Your task to perform on an android device: Clear the cart on bestbuy. Add razer blade to the cart on bestbuy, then select checkout. Image 0: 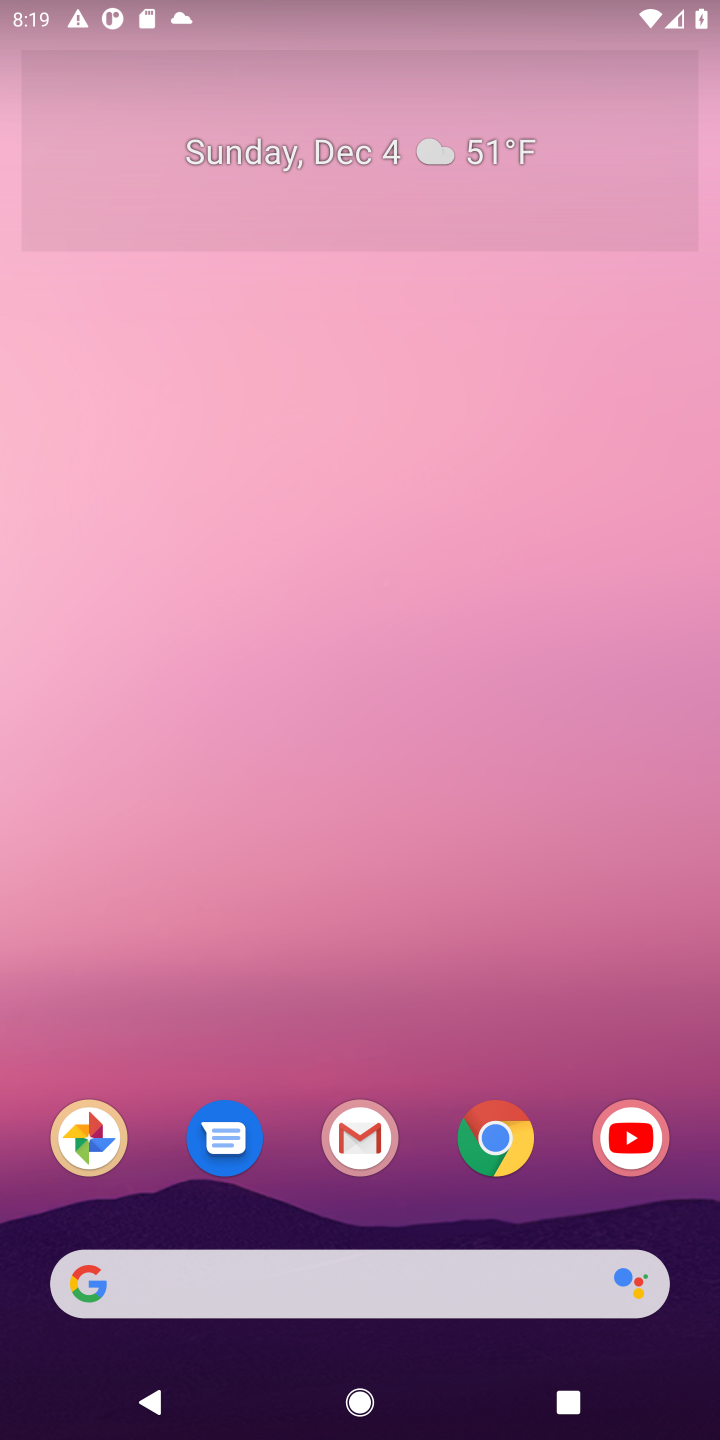
Step 0: click (520, 1147)
Your task to perform on an android device: Clear the cart on bestbuy. Add razer blade to the cart on bestbuy, then select checkout. Image 1: 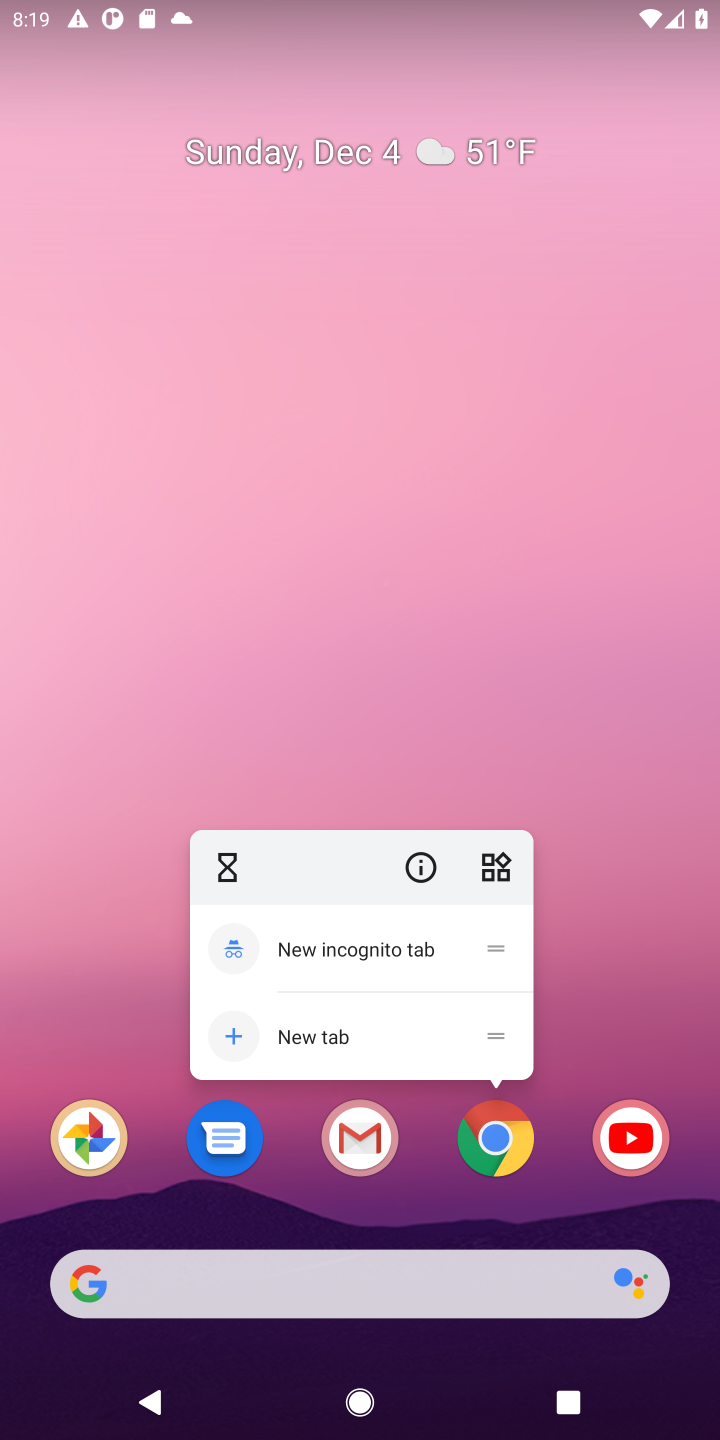
Step 1: click (520, 1147)
Your task to perform on an android device: Clear the cart on bestbuy. Add razer blade to the cart on bestbuy, then select checkout. Image 2: 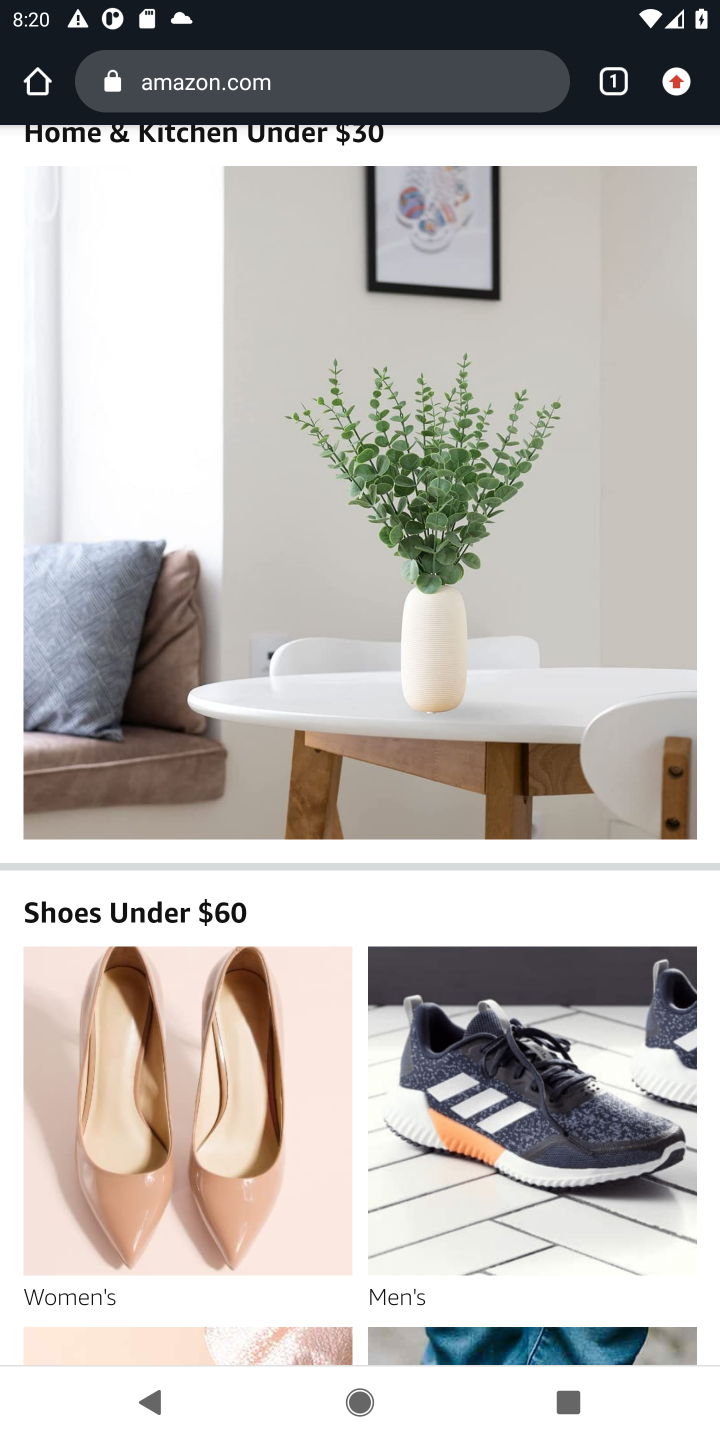
Step 2: click (359, 94)
Your task to perform on an android device: Clear the cart on bestbuy. Add razer blade to the cart on bestbuy, then select checkout. Image 3: 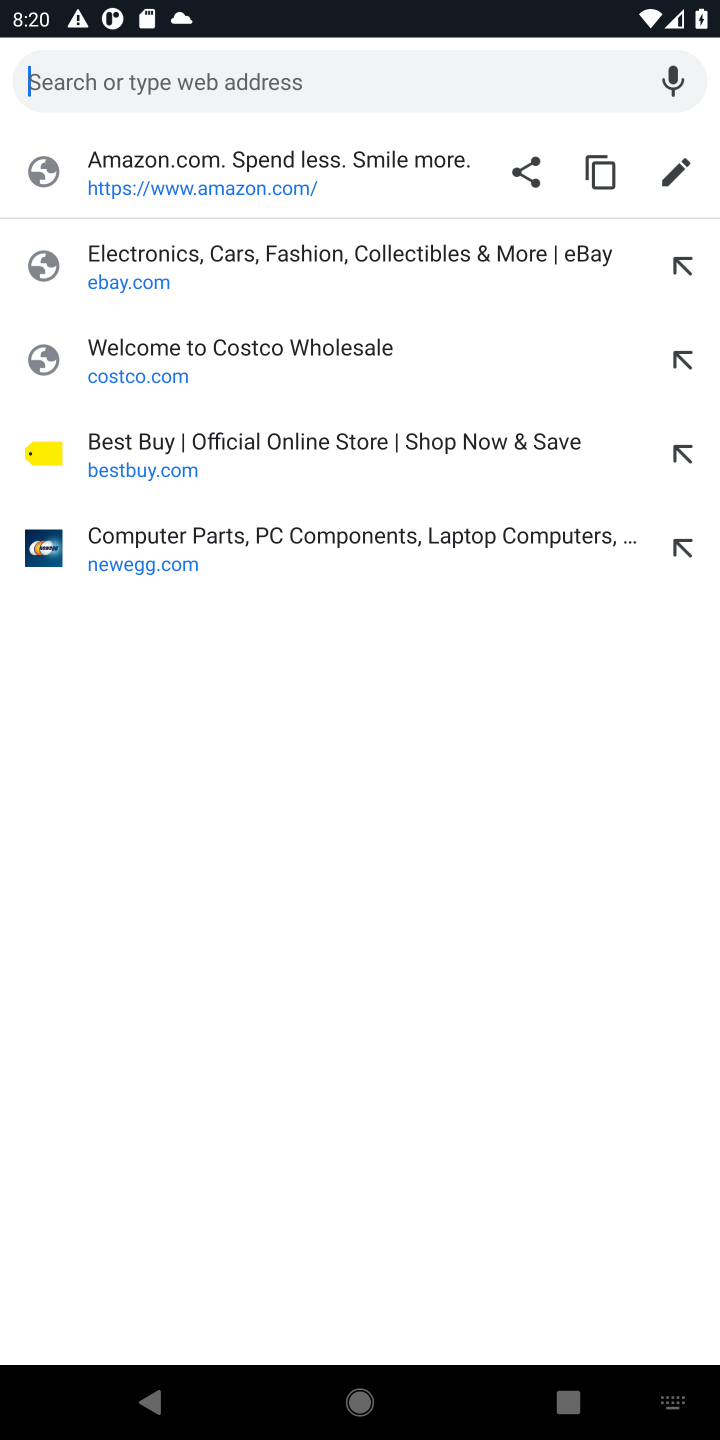
Step 3: press enter
Your task to perform on an android device: Clear the cart on bestbuy. Add razer blade to the cart on bestbuy, then select checkout. Image 4: 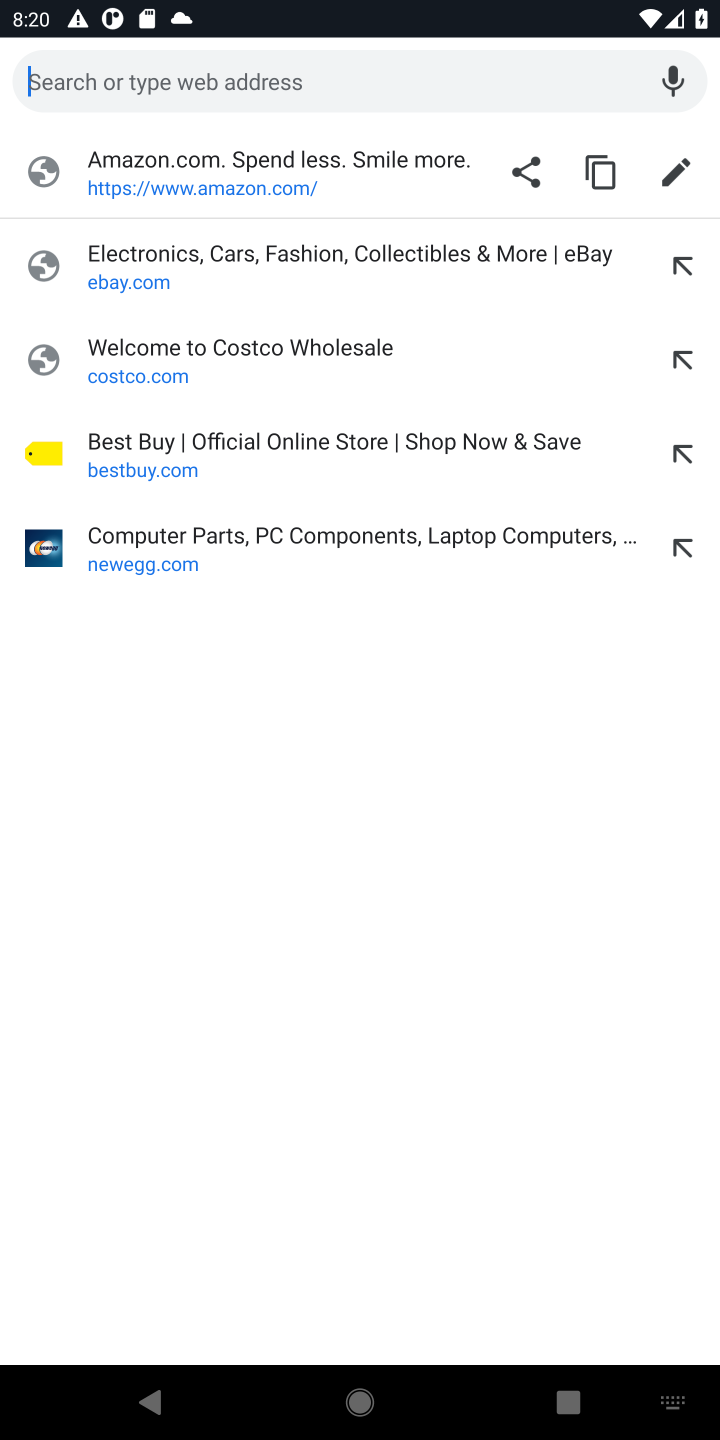
Step 4: type "bestbuy"
Your task to perform on an android device: Clear the cart on bestbuy. Add razer blade to the cart on bestbuy, then select checkout. Image 5: 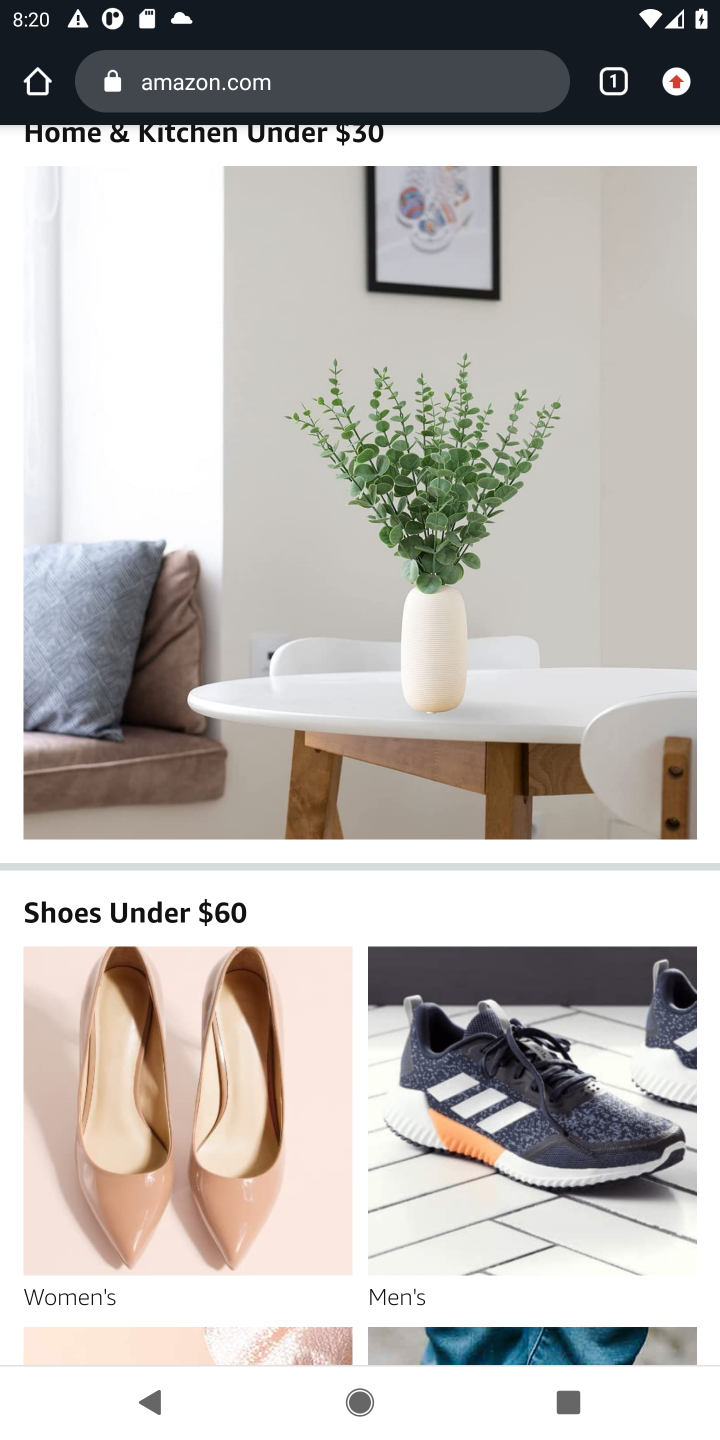
Step 5: click (454, 86)
Your task to perform on an android device: Clear the cart on bestbuy. Add razer blade to the cart on bestbuy, then select checkout. Image 6: 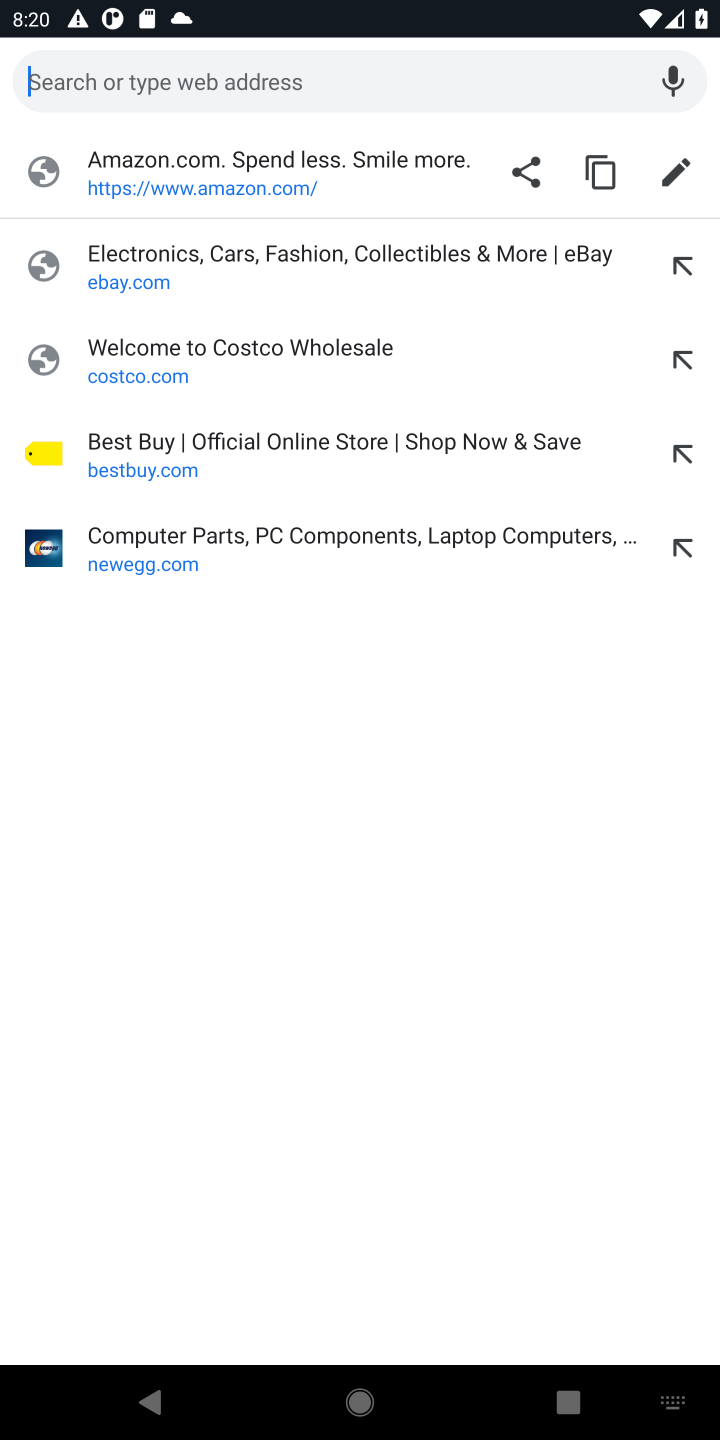
Step 6: type "bestbuy"
Your task to perform on an android device: Clear the cart on bestbuy. Add razer blade to the cart on bestbuy, then select checkout. Image 7: 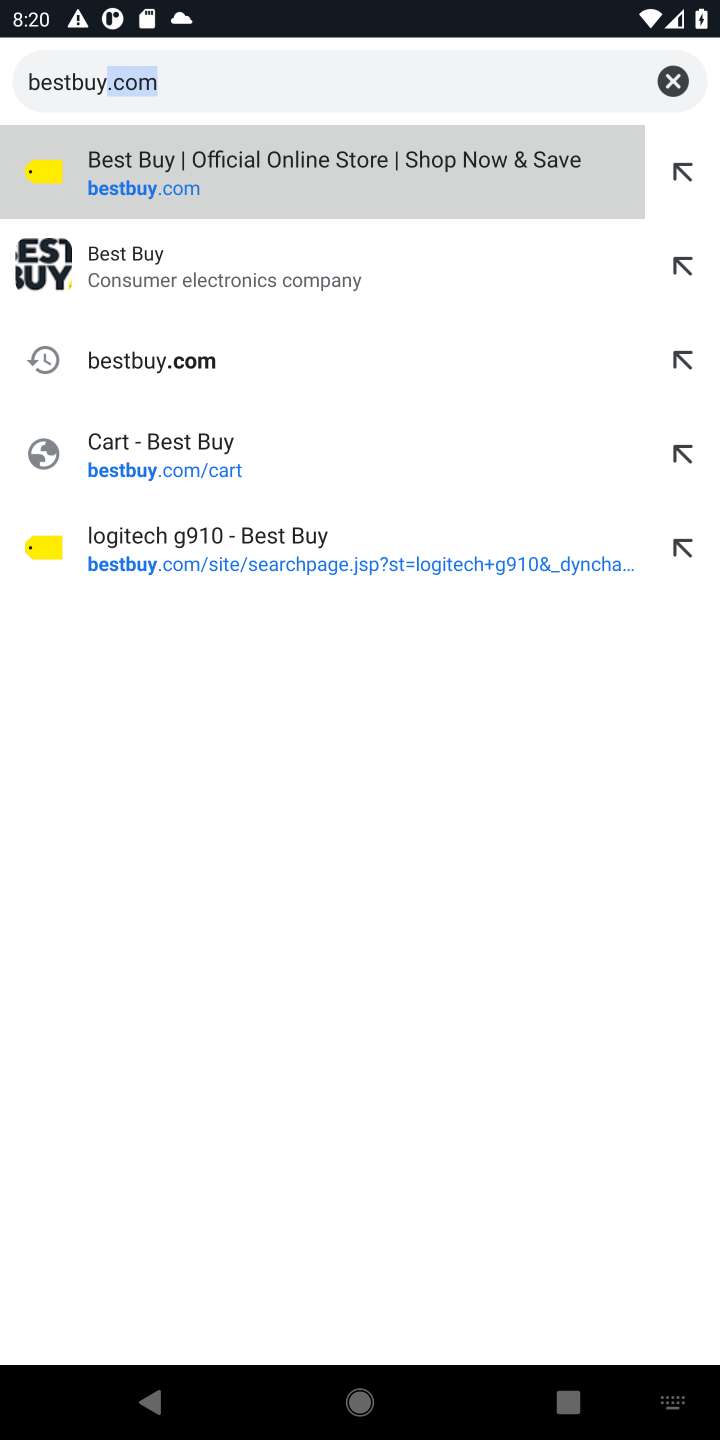
Step 7: press enter
Your task to perform on an android device: Clear the cart on bestbuy. Add razer blade to the cart on bestbuy, then select checkout. Image 8: 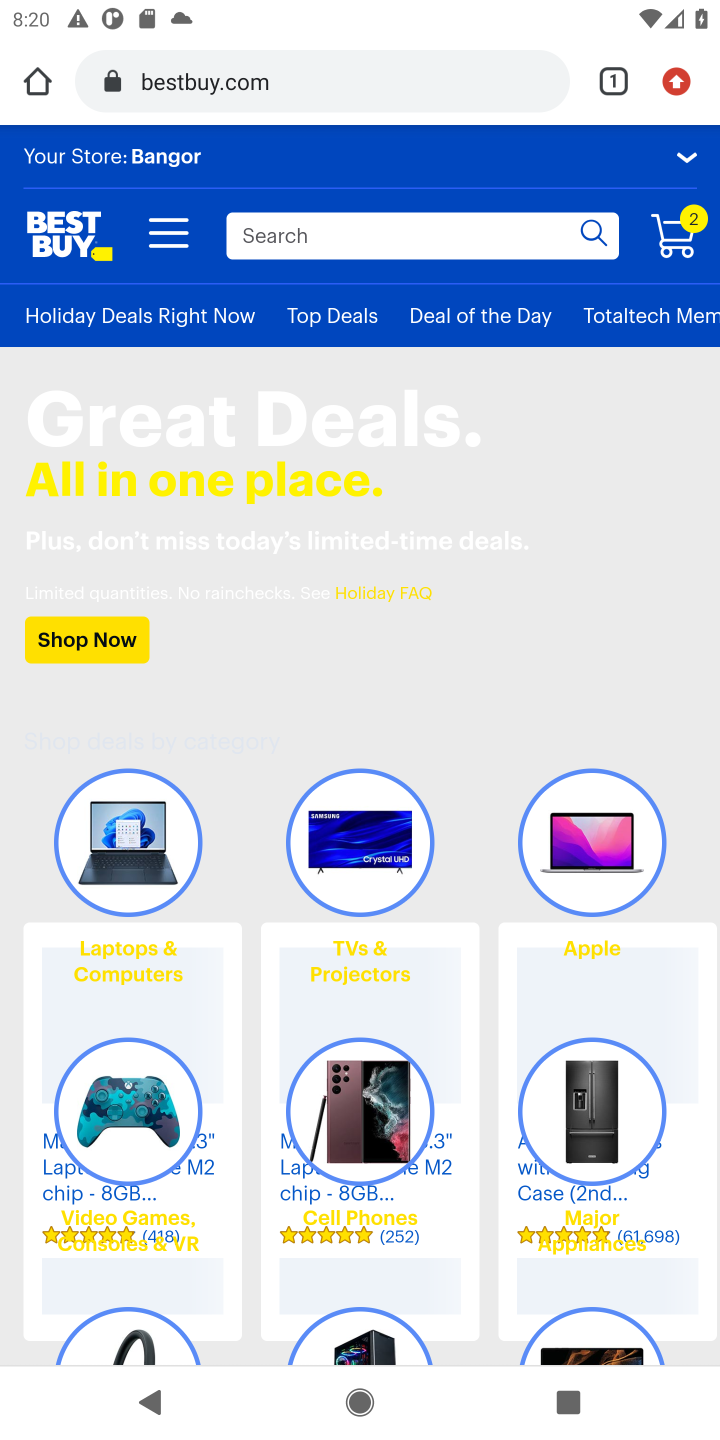
Step 8: click (672, 239)
Your task to perform on an android device: Clear the cart on bestbuy. Add razer blade to the cart on bestbuy, then select checkout. Image 9: 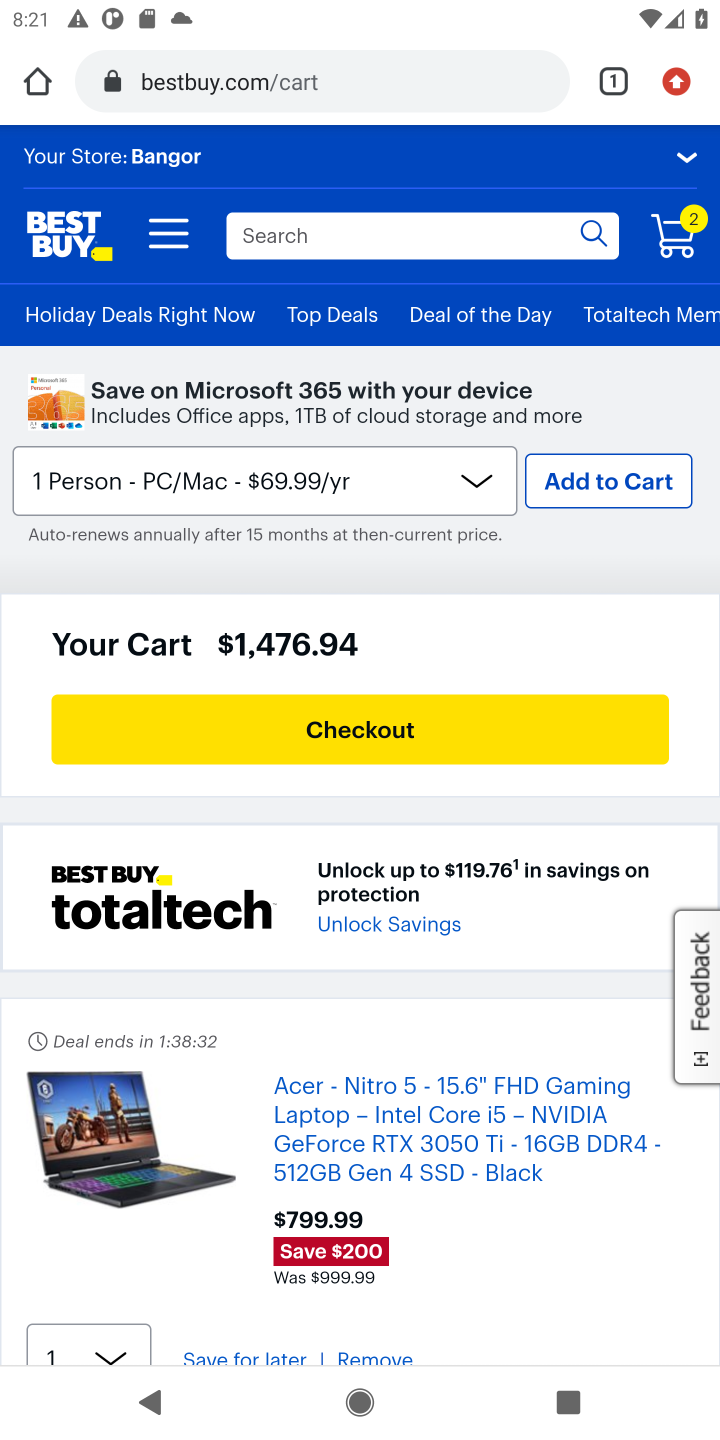
Step 9: drag from (496, 1289) to (593, 1003)
Your task to perform on an android device: Clear the cart on bestbuy. Add razer blade to the cart on bestbuy, then select checkout. Image 10: 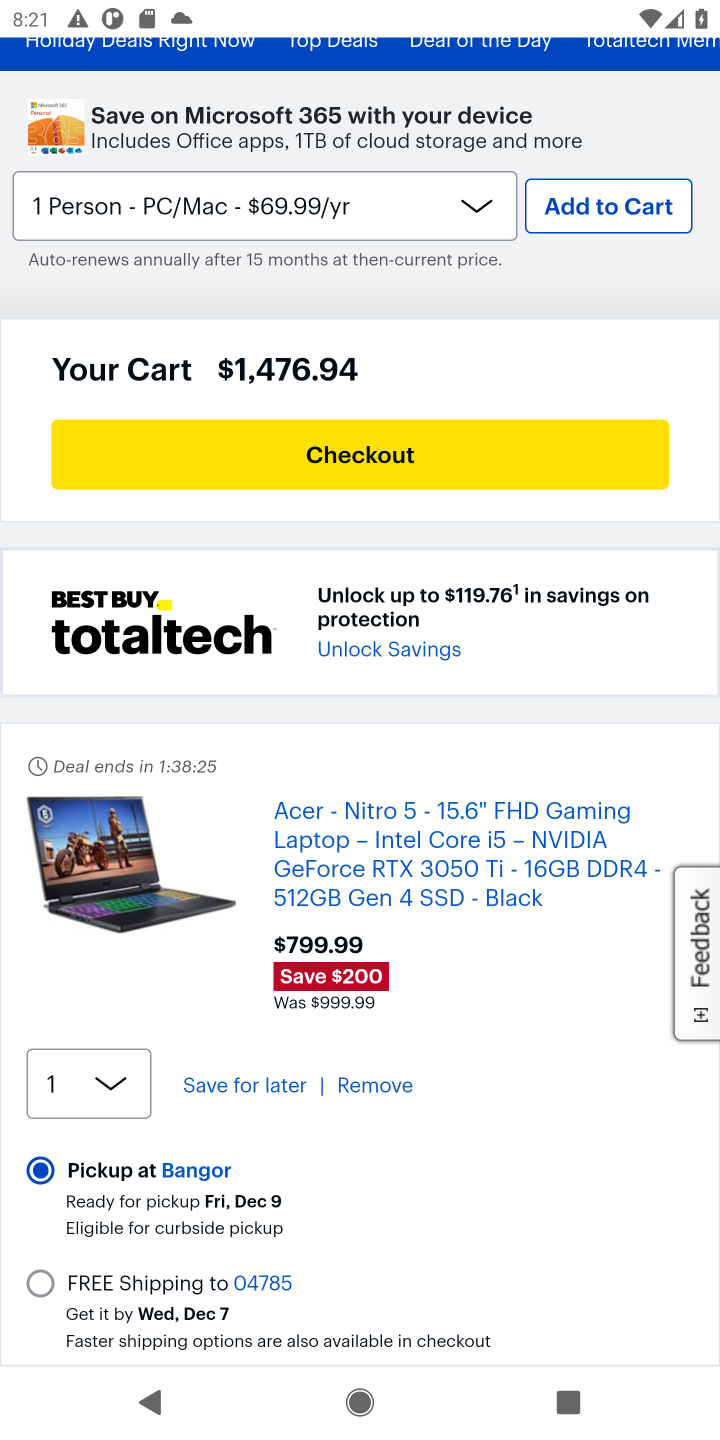
Step 10: click (390, 1074)
Your task to perform on an android device: Clear the cart on bestbuy. Add razer blade to the cart on bestbuy, then select checkout. Image 11: 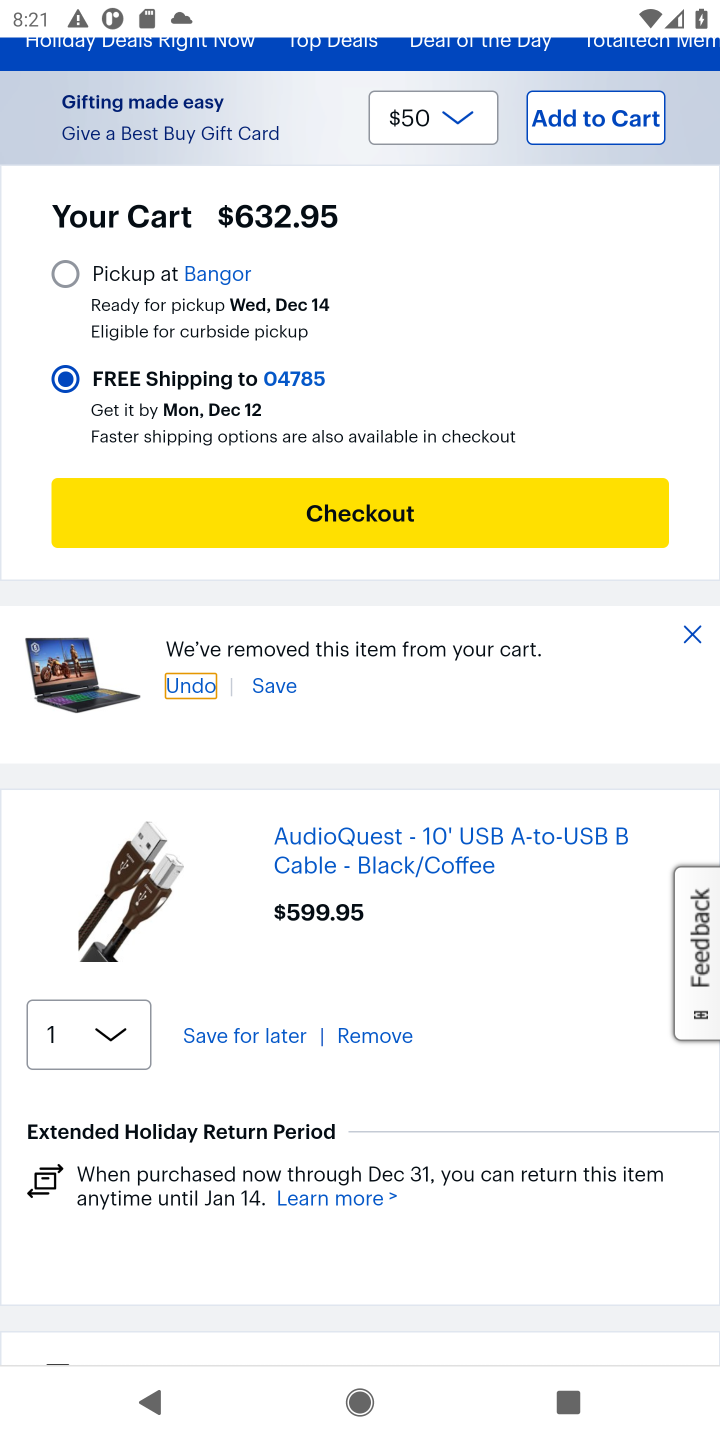
Step 11: click (382, 1021)
Your task to perform on an android device: Clear the cart on bestbuy. Add razer blade to the cart on bestbuy, then select checkout. Image 12: 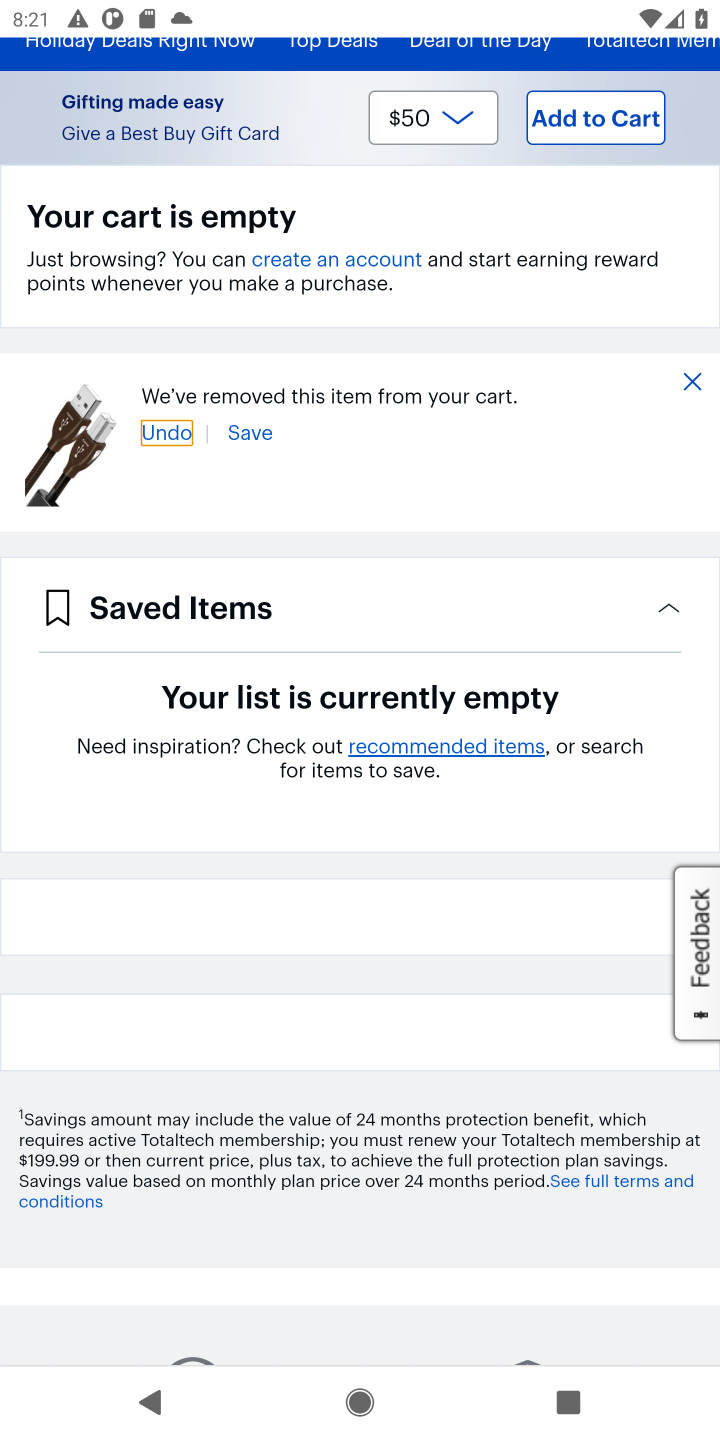
Step 12: drag from (542, 306) to (627, 1154)
Your task to perform on an android device: Clear the cart on bestbuy. Add razer blade to the cart on bestbuy, then select checkout. Image 13: 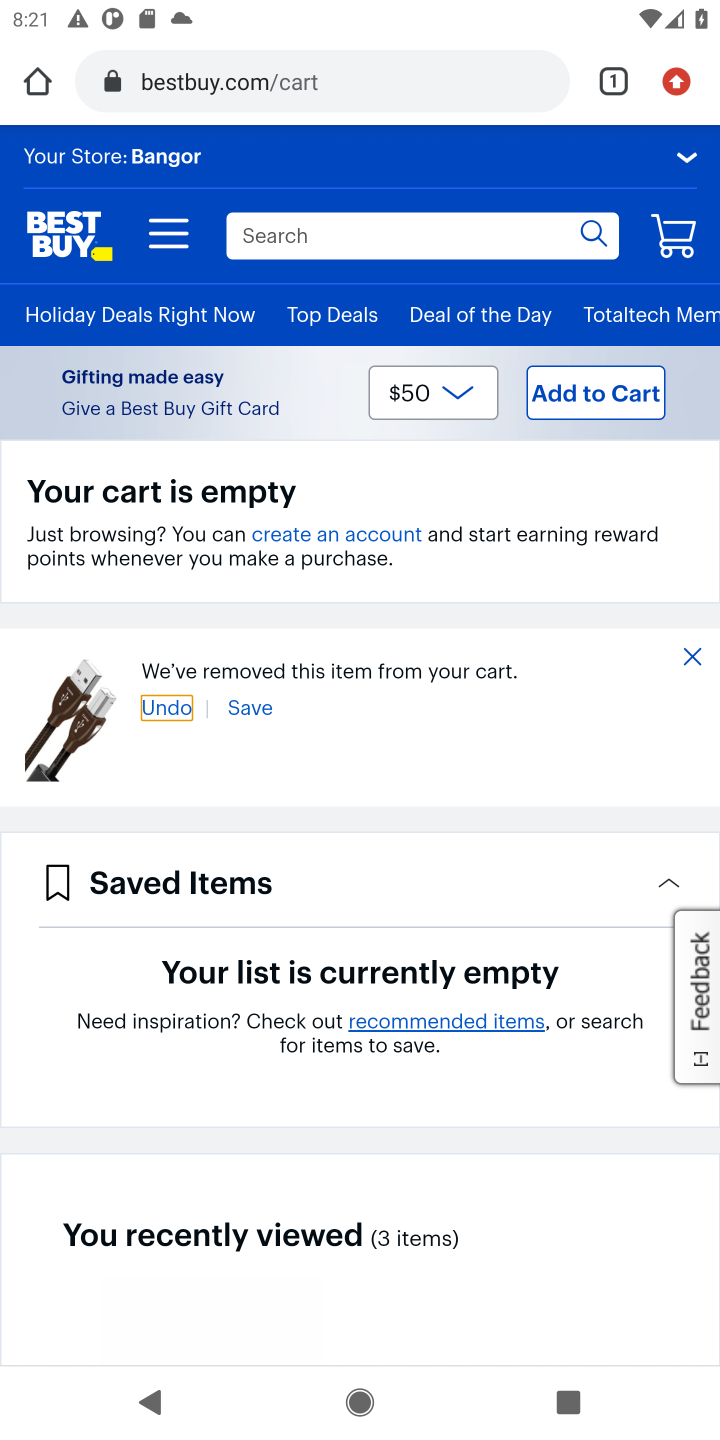
Step 13: click (698, 653)
Your task to perform on an android device: Clear the cart on bestbuy. Add razer blade to the cart on bestbuy, then select checkout. Image 14: 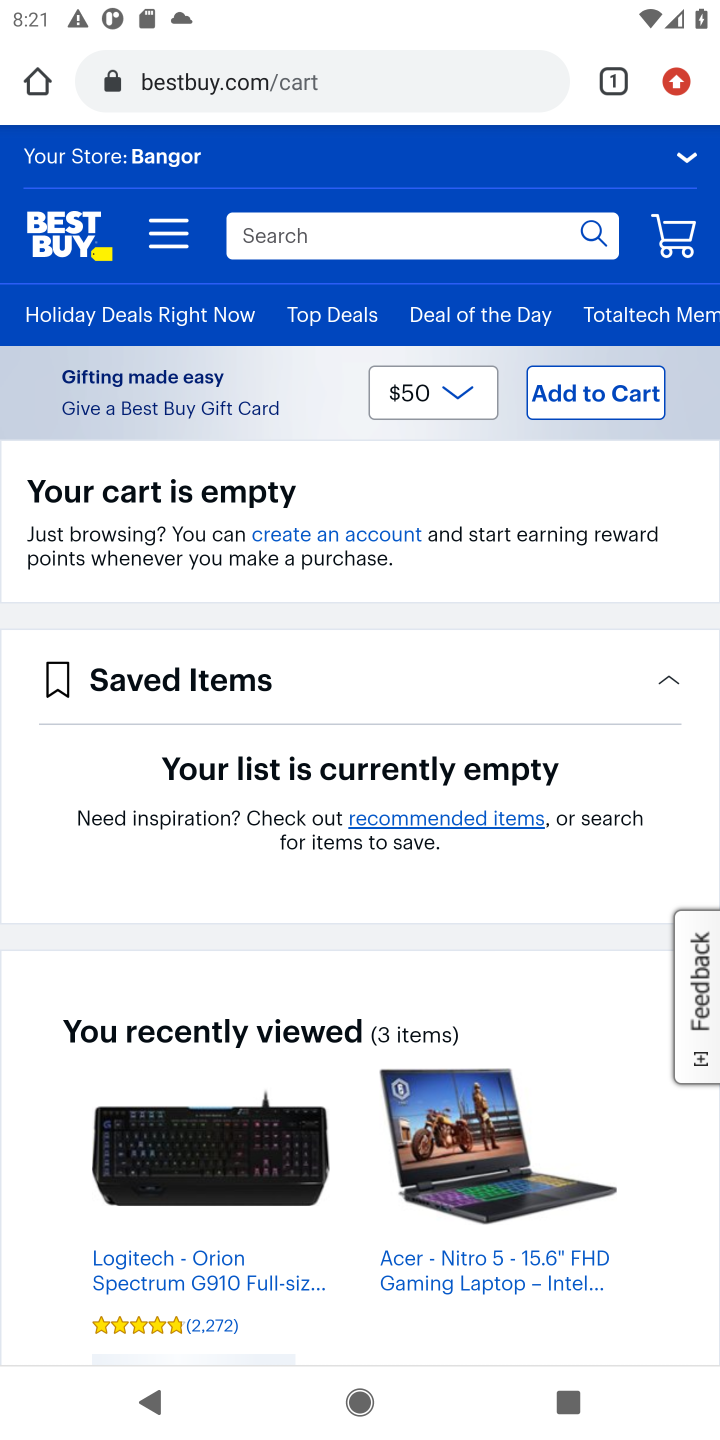
Step 14: click (458, 225)
Your task to perform on an android device: Clear the cart on bestbuy. Add razer blade to the cart on bestbuy, then select checkout. Image 15: 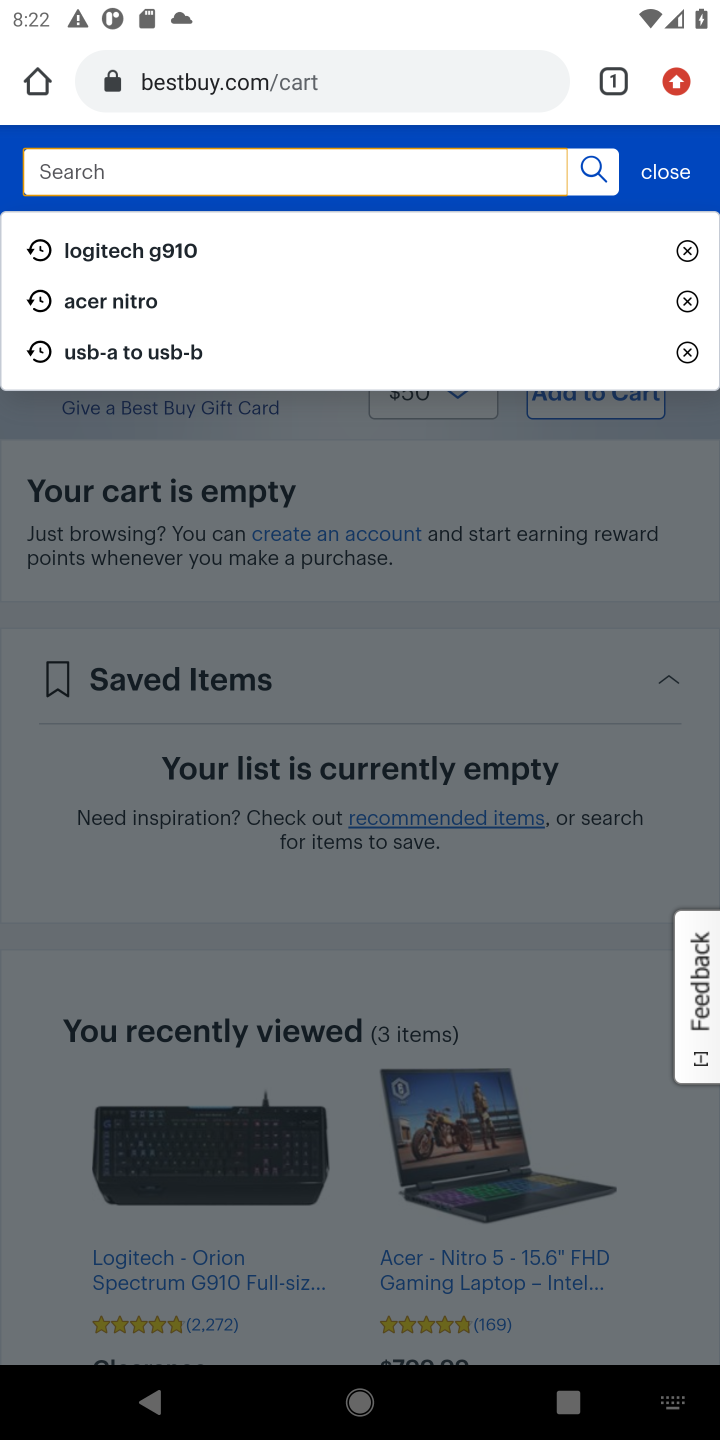
Step 15: type "razer blade"
Your task to perform on an android device: Clear the cart on bestbuy. Add razer blade to the cart on bestbuy, then select checkout. Image 16: 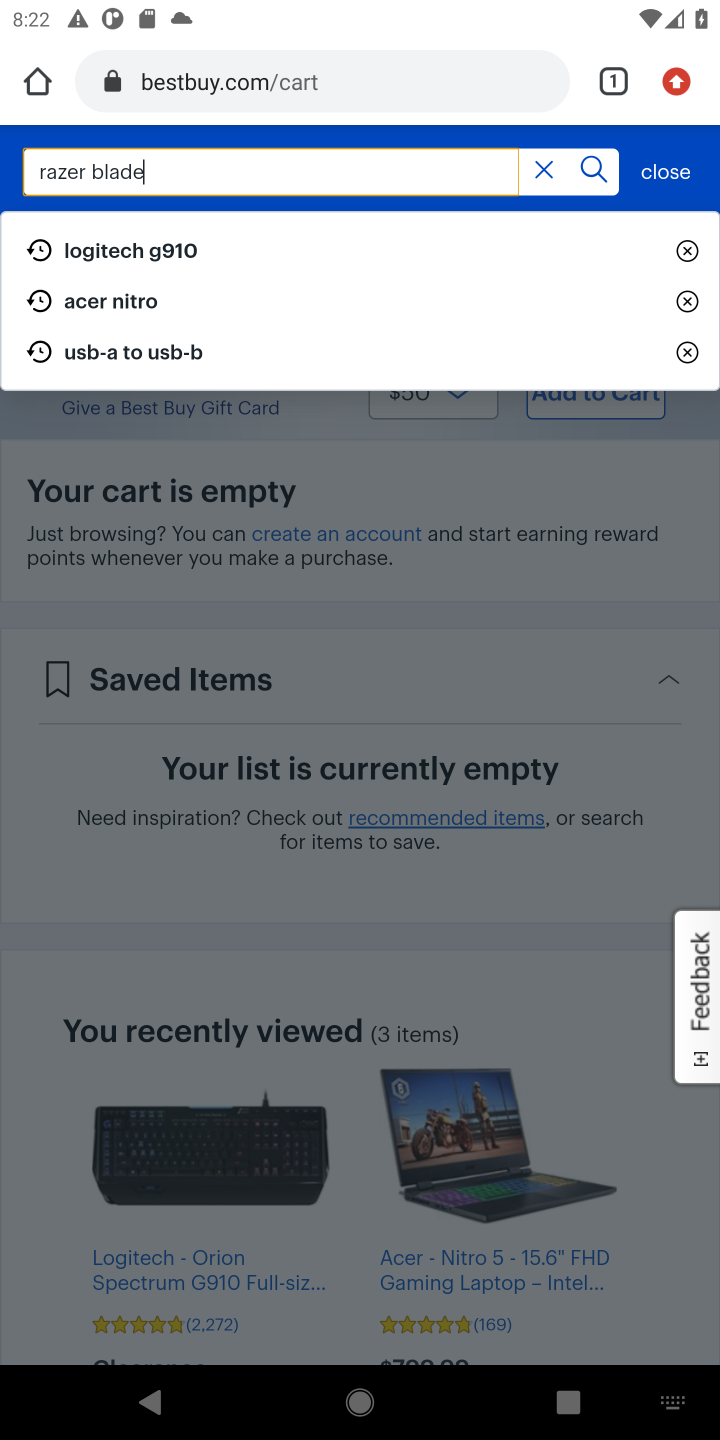
Step 16: press enter
Your task to perform on an android device: Clear the cart on bestbuy. Add razer blade to the cart on bestbuy, then select checkout. Image 17: 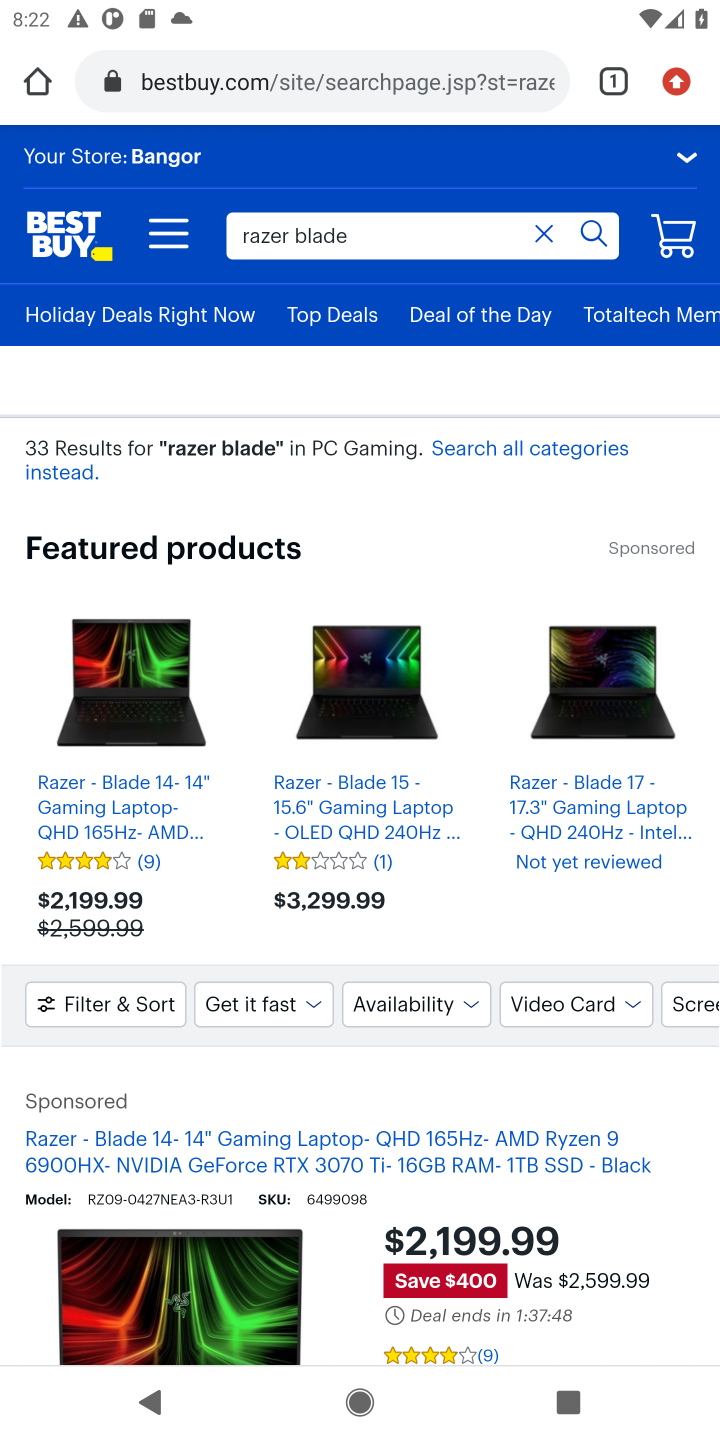
Step 17: click (212, 1262)
Your task to perform on an android device: Clear the cart on bestbuy. Add razer blade to the cart on bestbuy, then select checkout. Image 18: 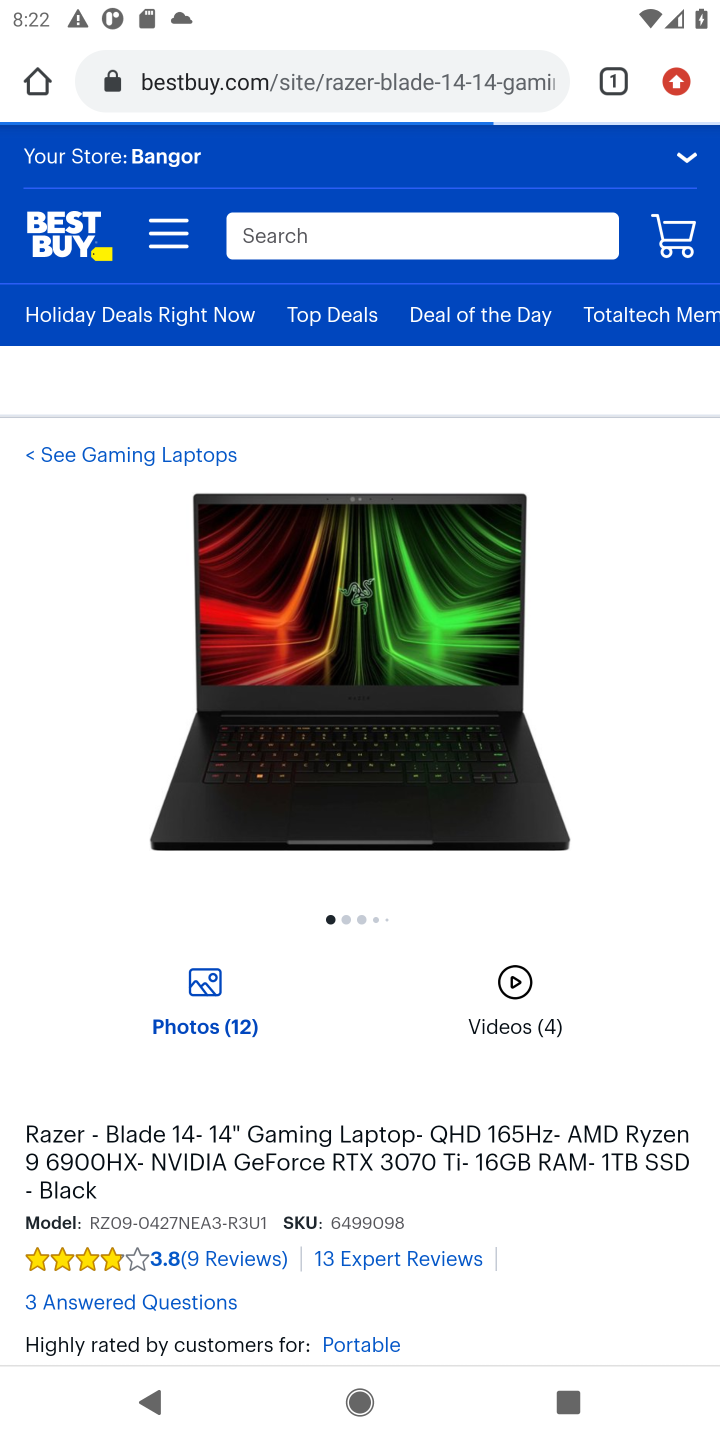
Step 18: drag from (567, 1197) to (468, 644)
Your task to perform on an android device: Clear the cart on bestbuy. Add razer blade to the cart on bestbuy, then select checkout. Image 19: 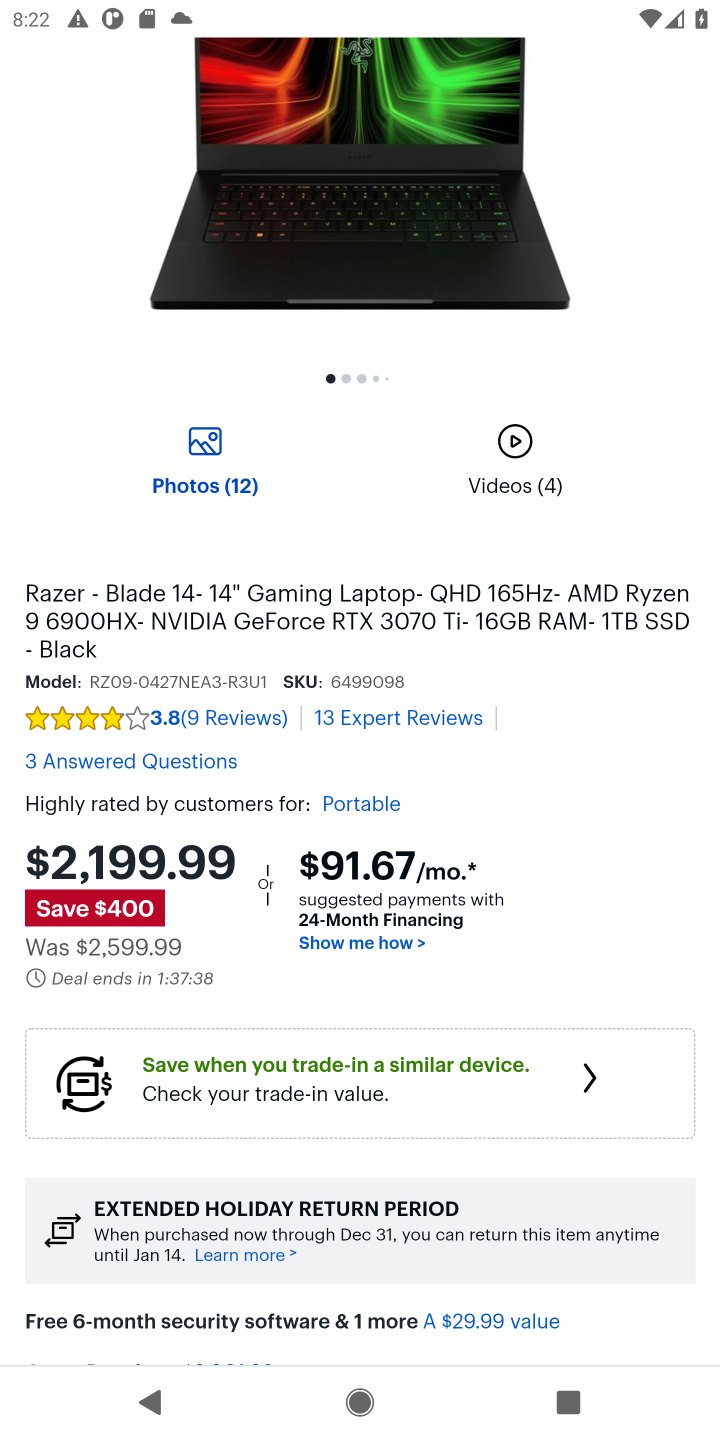
Step 19: drag from (614, 904) to (478, 325)
Your task to perform on an android device: Clear the cart on bestbuy. Add razer blade to the cart on bestbuy, then select checkout. Image 20: 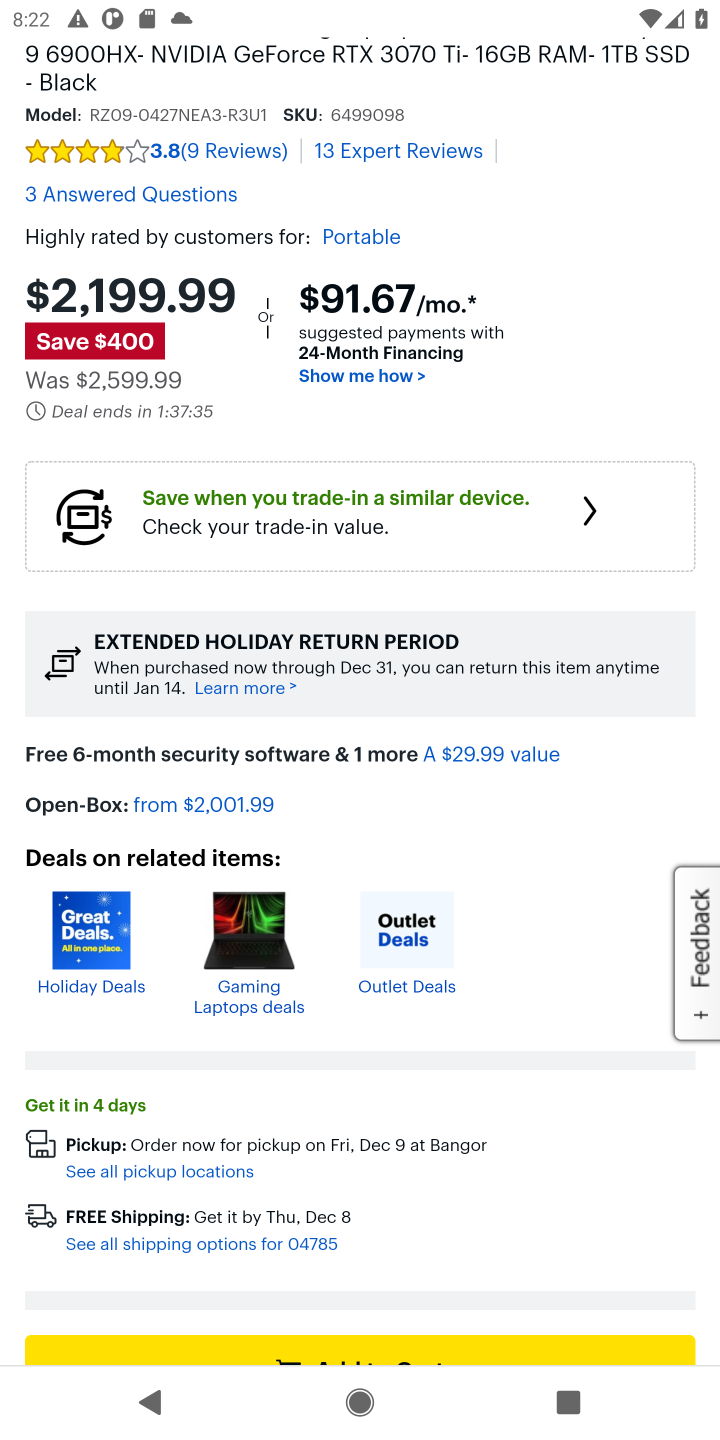
Step 20: drag from (544, 1018) to (553, 606)
Your task to perform on an android device: Clear the cart on bestbuy. Add razer blade to the cart on bestbuy, then select checkout. Image 21: 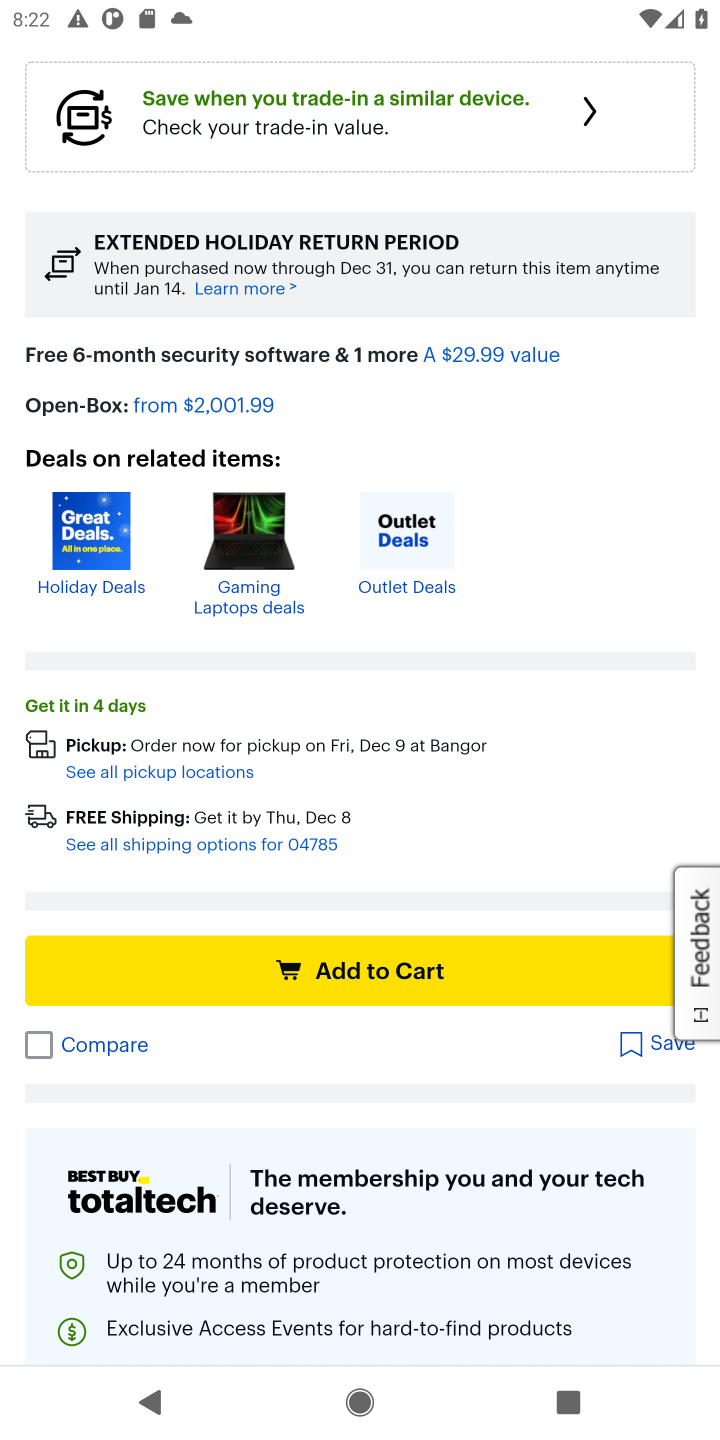
Step 21: click (402, 956)
Your task to perform on an android device: Clear the cart on bestbuy. Add razer blade to the cart on bestbuy, then select checkout. Image 22: 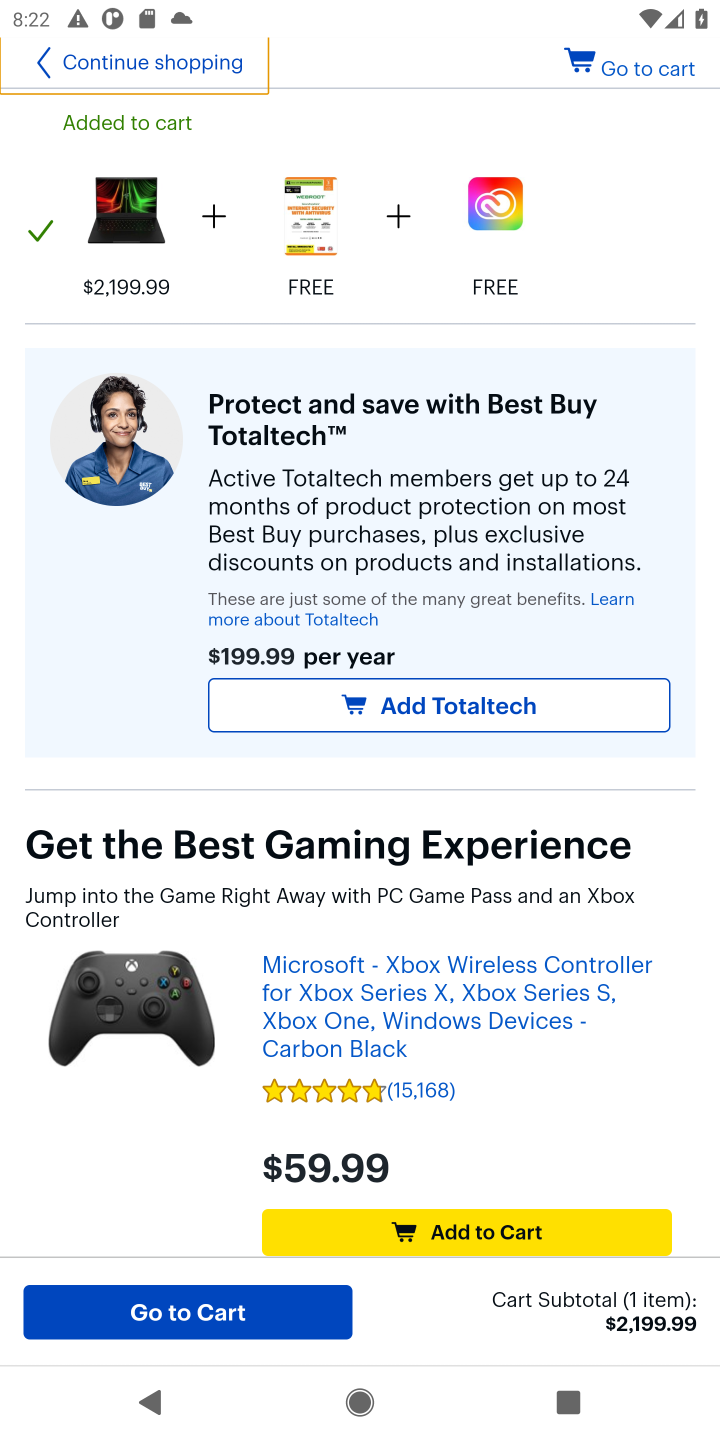
Step 22: click (246, 1316)
Your task to perform on an android device: Clear the cart on bestbuy. Add razer blade to the cart on bestbuy, then select checkout. Image 23: 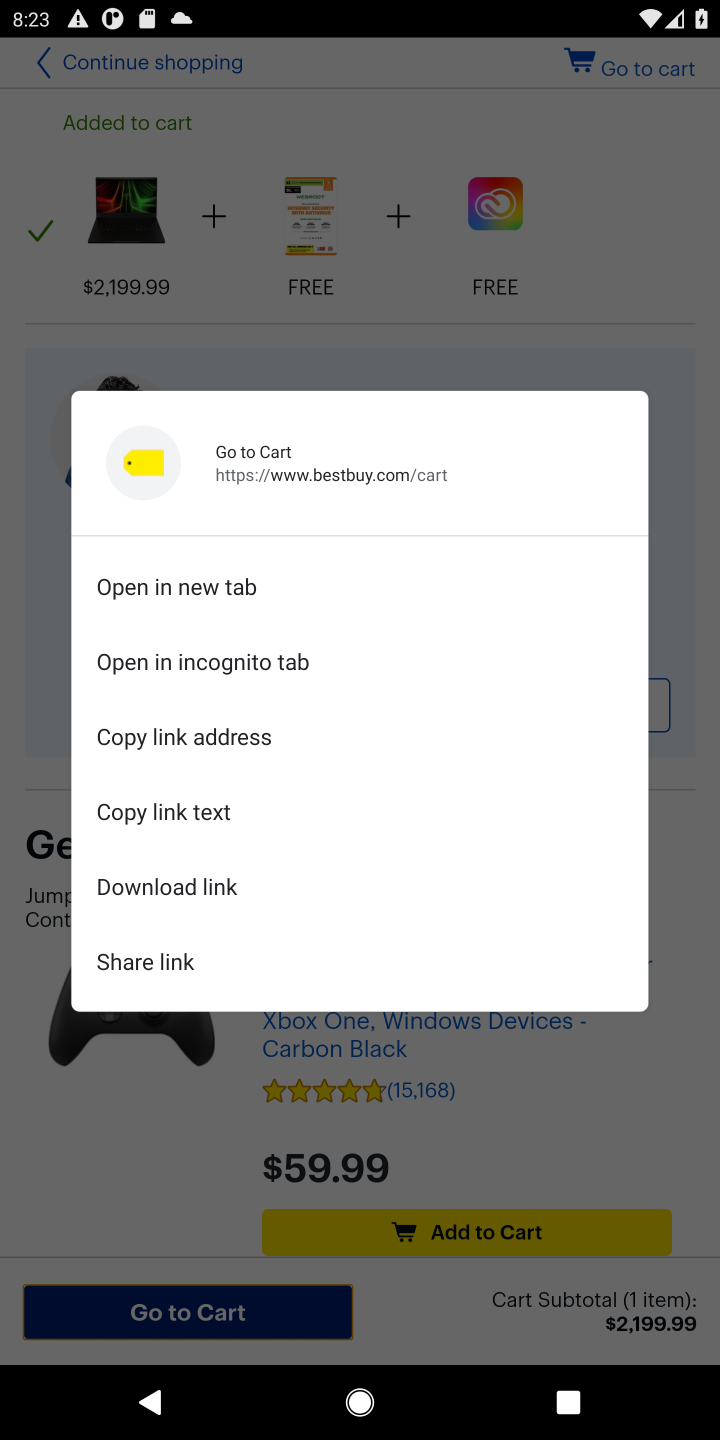
Step 23: click (544, 333)
Your task to perform on an android device: Clear the cart on bestbuy. Add razer blade to the cart on bestbuy, then select checkout. Image 24: 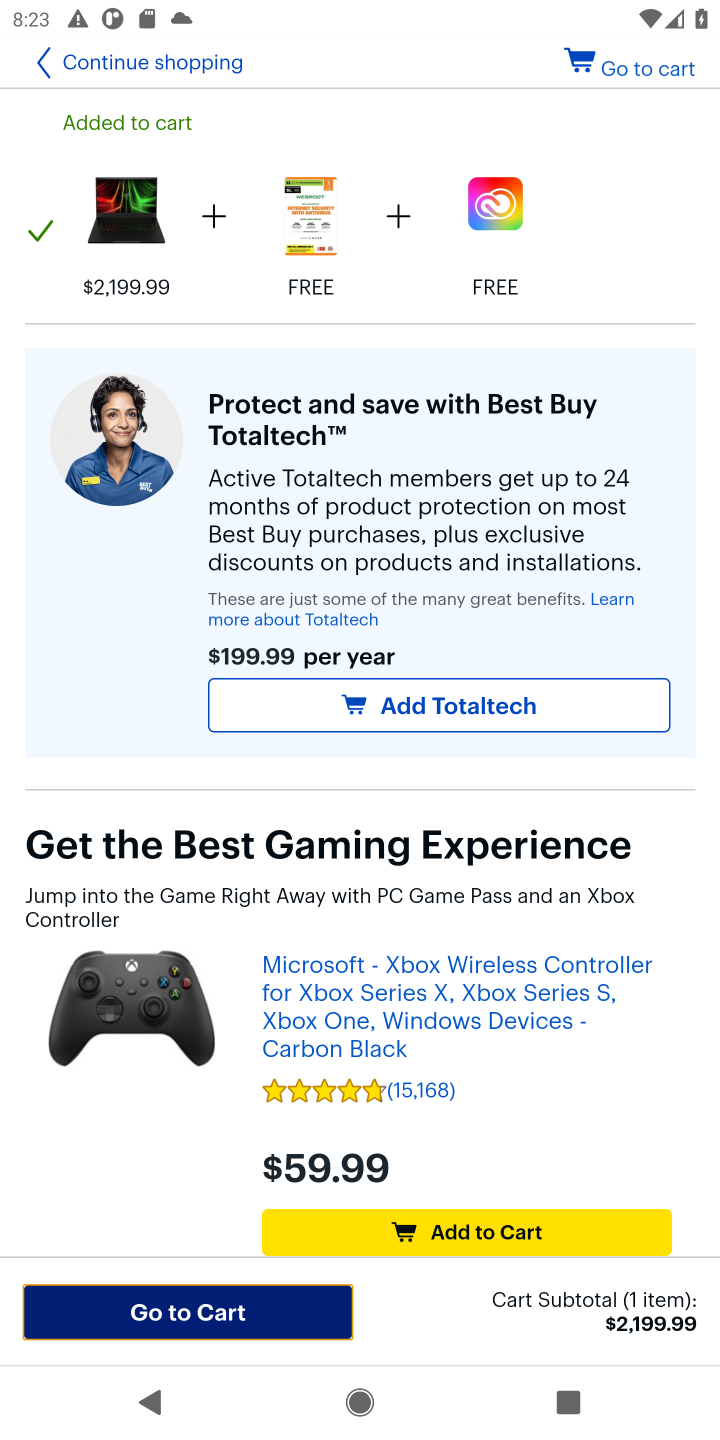
Step 24: click (192, 1312)
Your task to perform on an android device: Clear the cart on bestbuy. Add razer blade to the cart on bestbuy, then select checkout. Image 25: 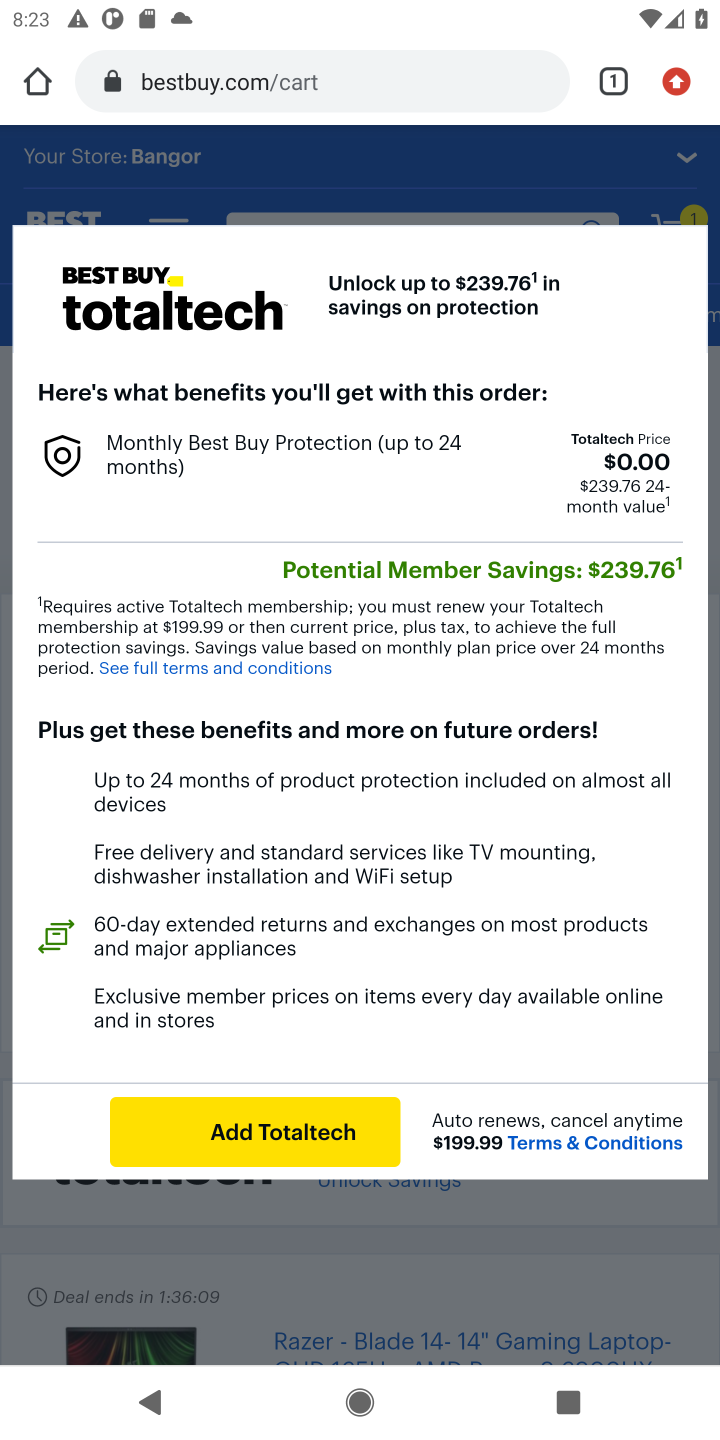
Step 25: click (358, 978)
Your task to perform on an android device: Clear the cart on bestbuy. Add razer blade to the cart on bestbuy, then select checkout. Image 26: 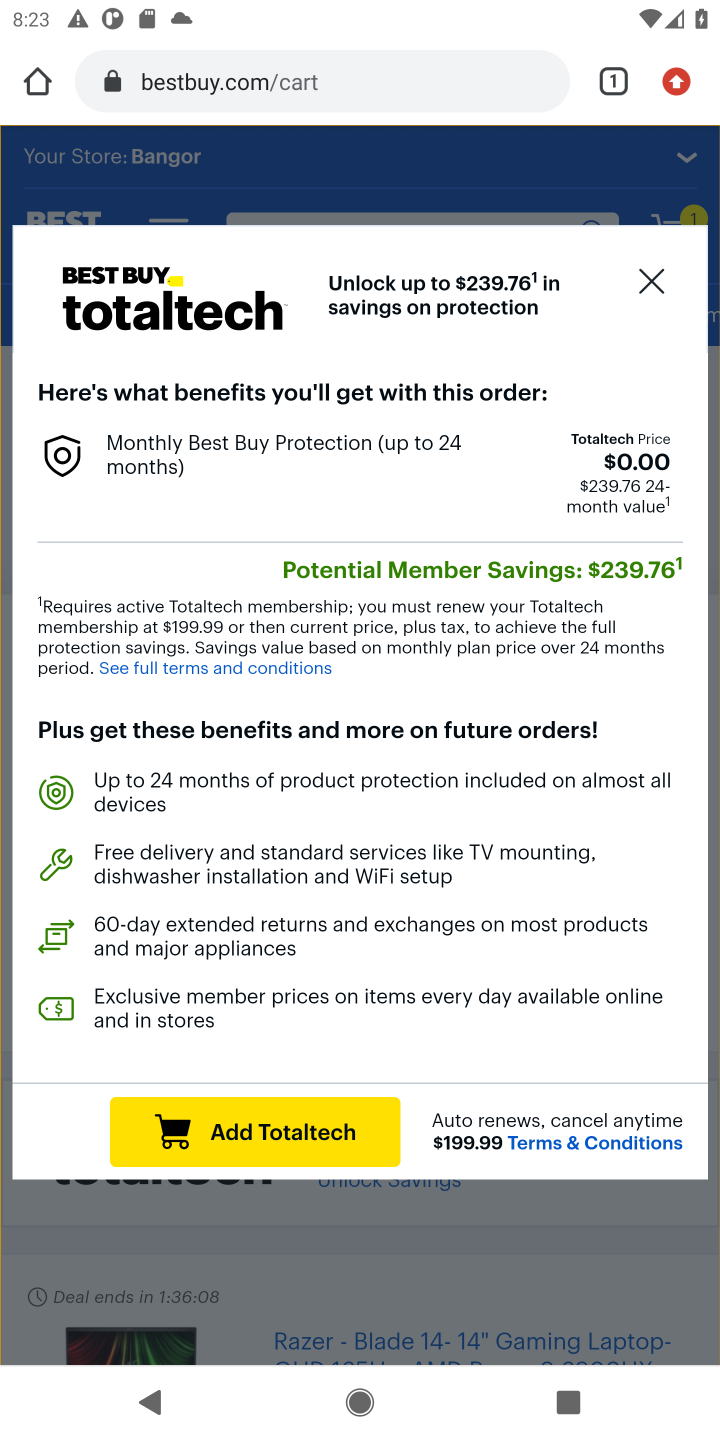
Step 26: click (652, 295)
Your task to perform on an android device: Clear the cart on bestbuy. Add razer blade to the cart on bestbuy, then select checkout. Image 27: 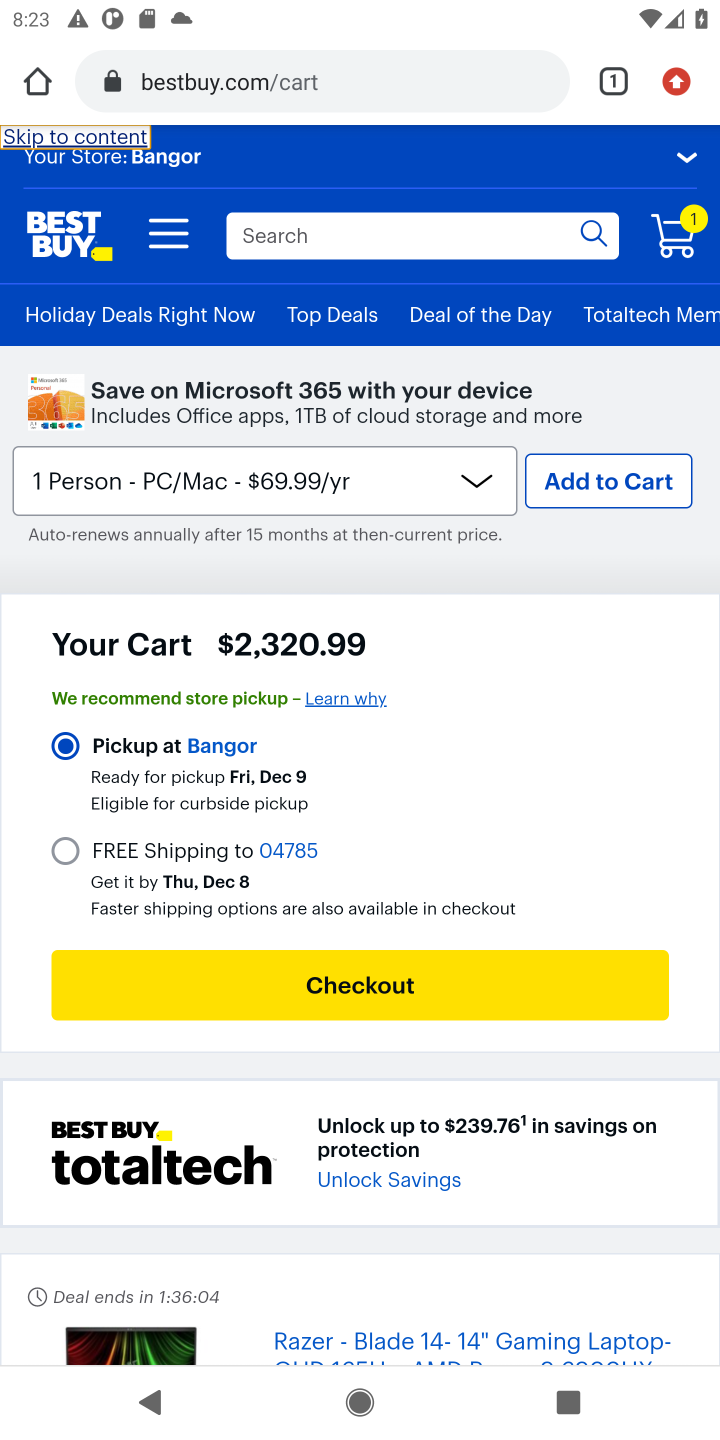
Step 27: click (363, 988)
Your task to perform on an android device: Clear the cart on bestbuy. Add razer blade to the cart on bestbuy, then select checkout. Image 28: 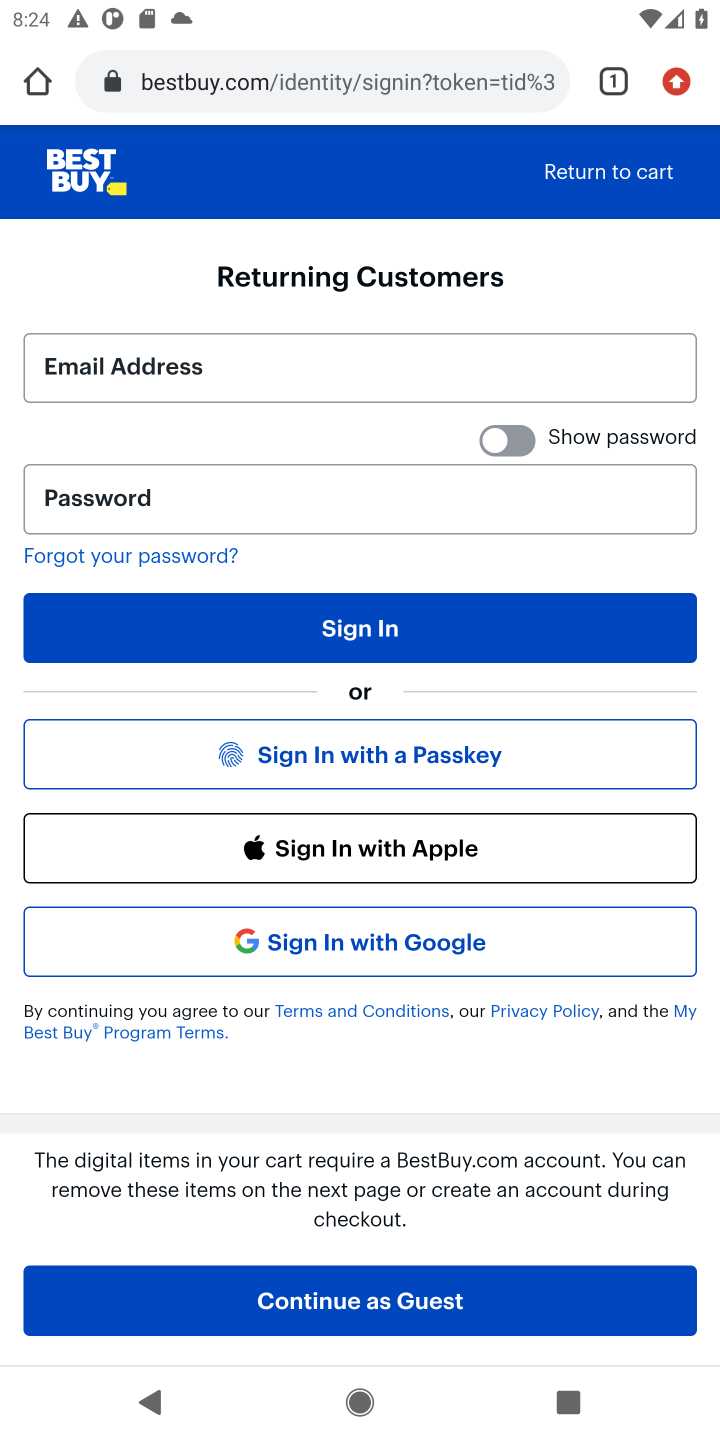
Step 28: task complete